Your task to perform on an android device: Go to wifi settings Image 0: 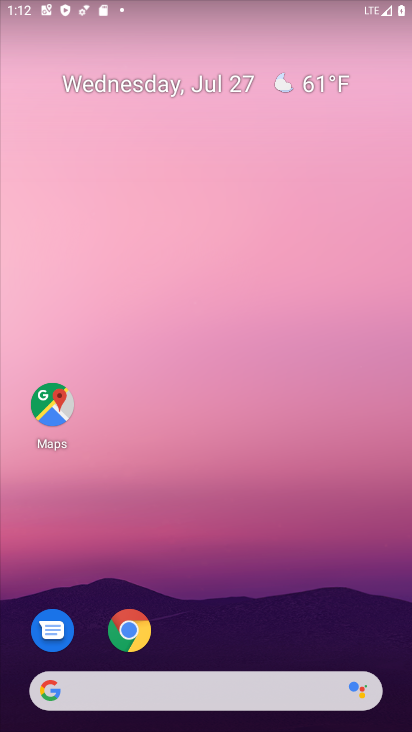
Step 0: drag from (151, 625) to (158, 312)
Your task to perform on an android device: Go to wifi settings Image 1: 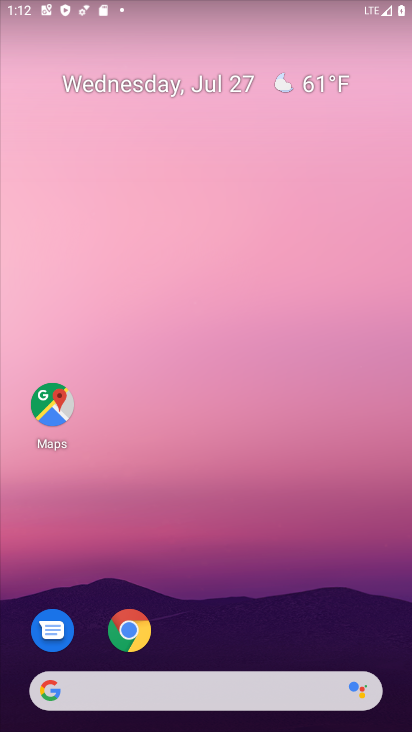
Step 1: click (202, 640)
Your task to perform on an android device: Go to wifi settings Image 2: 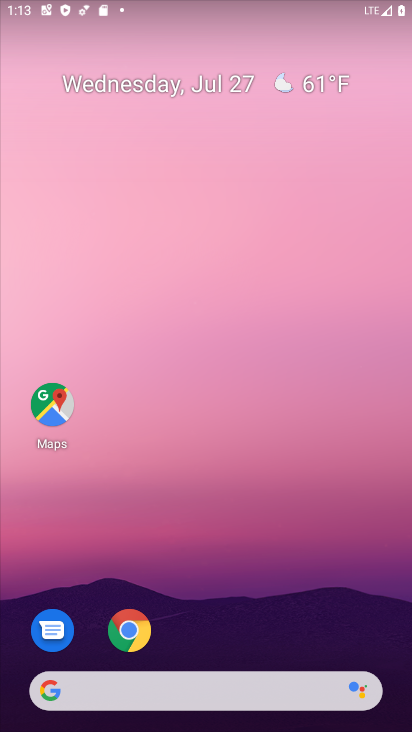
Step 2: drag from (258, 670) to (289, 89)
Your task to perform on an android device: Go to wifi settings Image 3: 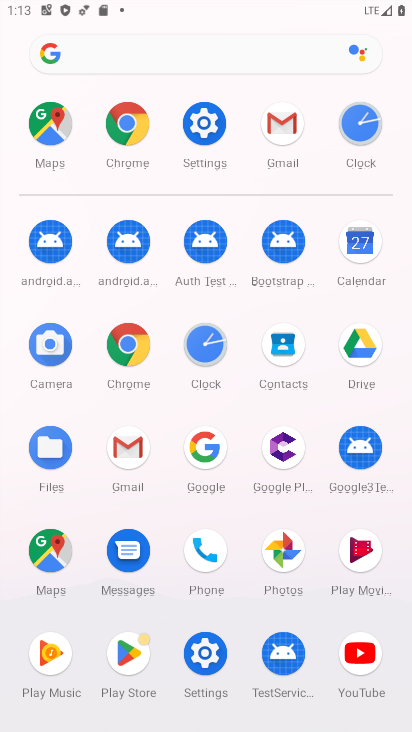
Step 3: click (197, 128)
Your task to perform on an android device: Go to wifi settings Image 4: 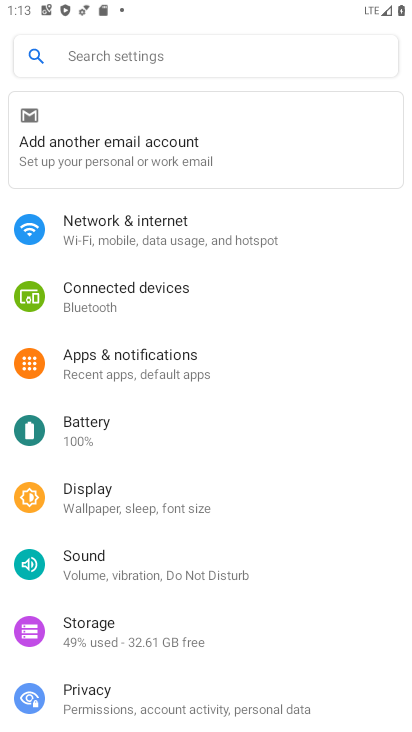
Step 4: click (147, 236)
Your task to perform on an android device: Go to wifi settings Image 5: 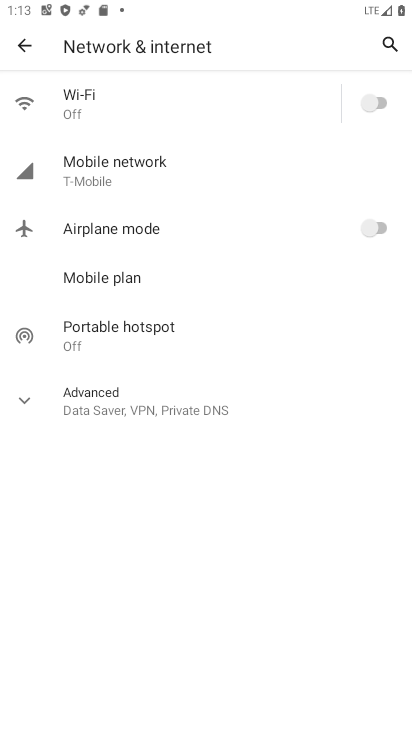
Step 5: click (85, 99)
Your task to perform on an android device: Go to wifi settings Image 6: 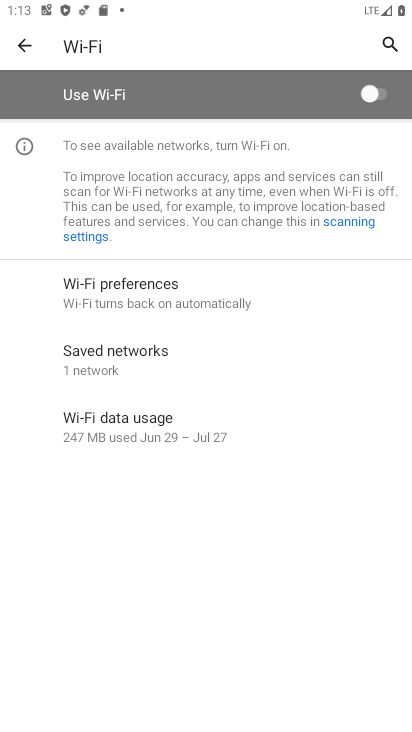
Step 6: click (370, 88)
Your task to perform on an android device: Go to wifi settings Image 7: 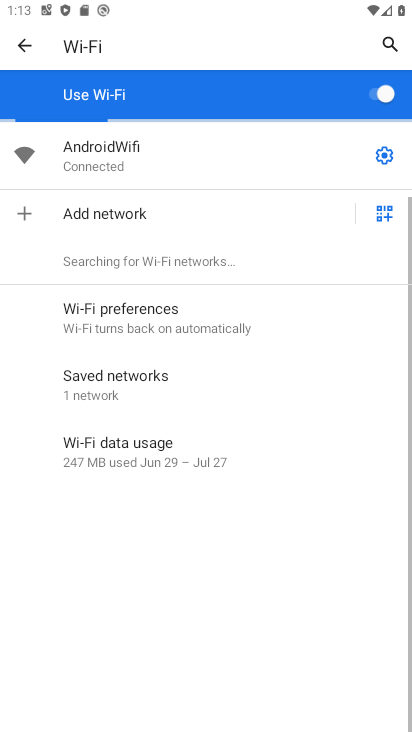
Step 7: click (377, 145)
Your task to perform on an android device: Go to wifi settings Image 8: 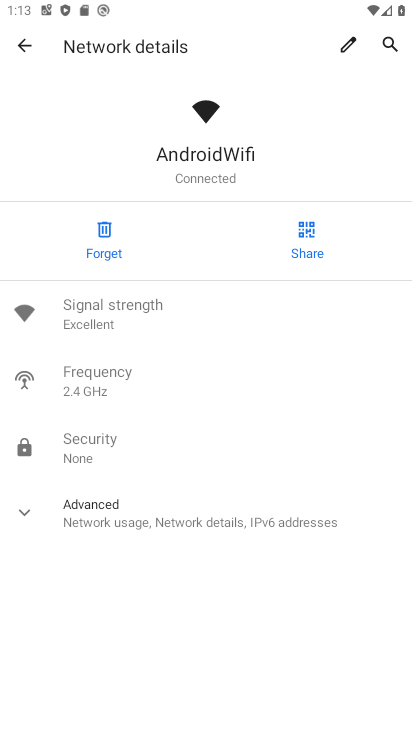
Step 8: click (76, 513)
Your task to perform on an android device: Go to wifi settings Image 9: 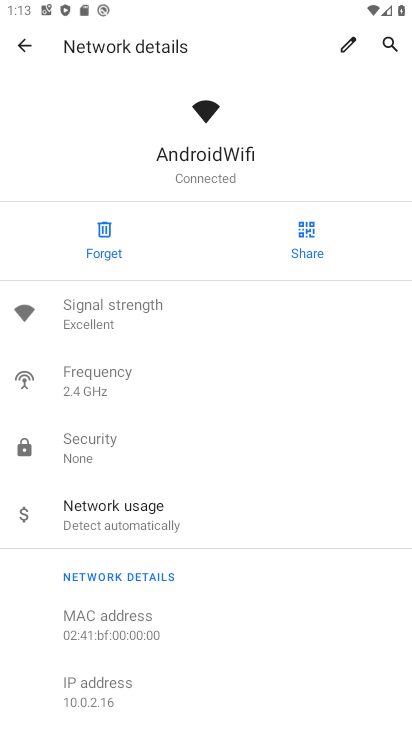
Step 9: task complete